Your task to perform on an android device: check google app version Image 0: 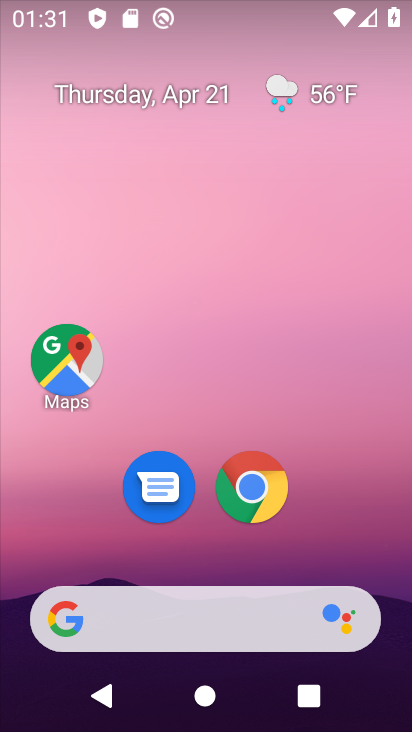
Step 0: click (228, 480)
Your task to perform on an android device: check google app version Image 1: 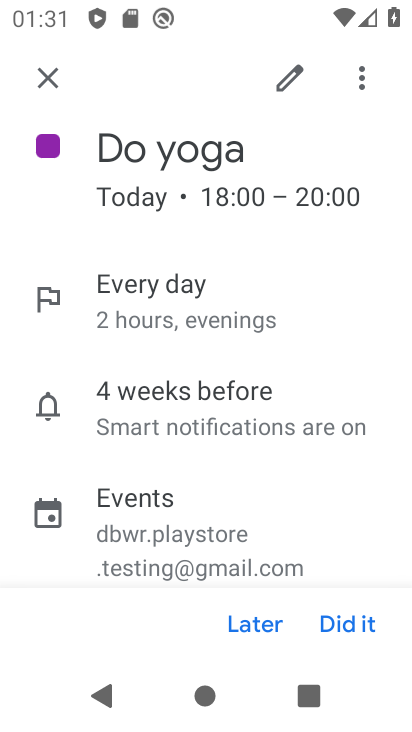
Step 1: press home button
Your task to perform on an android device: check google app version Image 2: 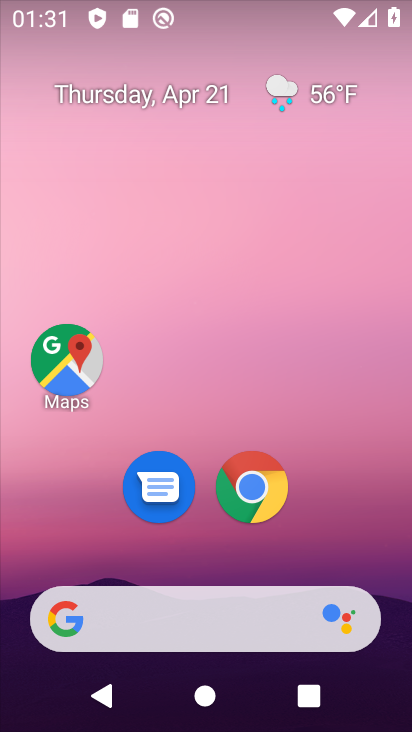
Step 2: drag from (308, 547) to (328, 40)
Your task to perform on an android device: check google app version Image 3: 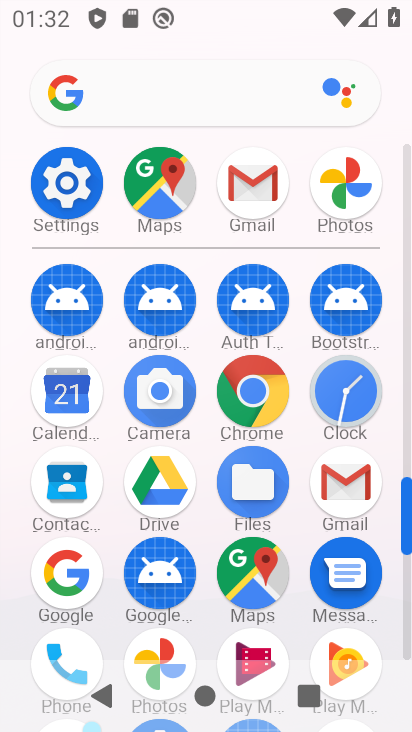
Step 3: click (78, 569)
Your task to perform on an android device: check google app version Image 4: 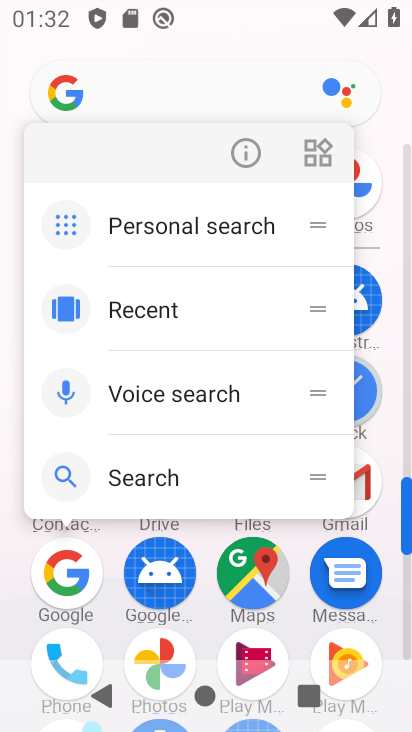
Step 4: click (78, 569)
Your task to perform on an android device: check google app version Image 5: 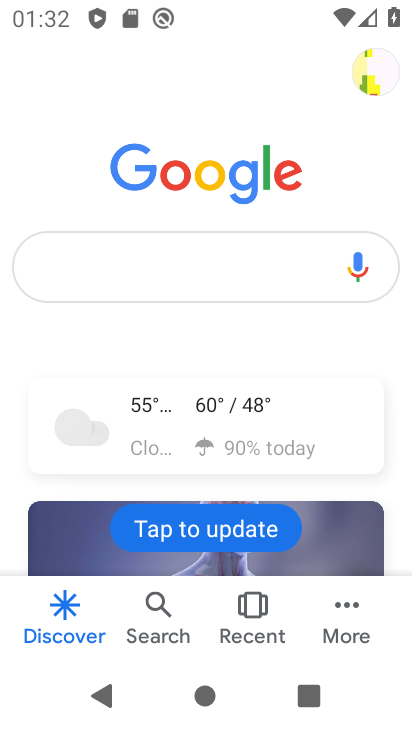
Step 5: click (344, 618)
Your task to perform on an android device: check google app version Image 6: 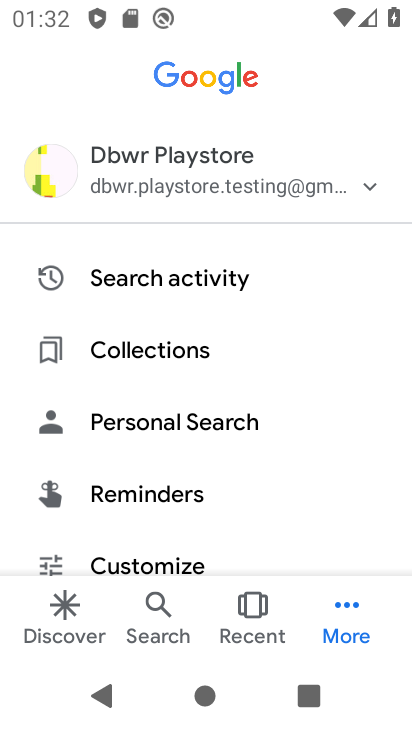
Step 6: drag from (211, 540) to (241, 390)
Your task to perform on an android device: check google app version Image 7: 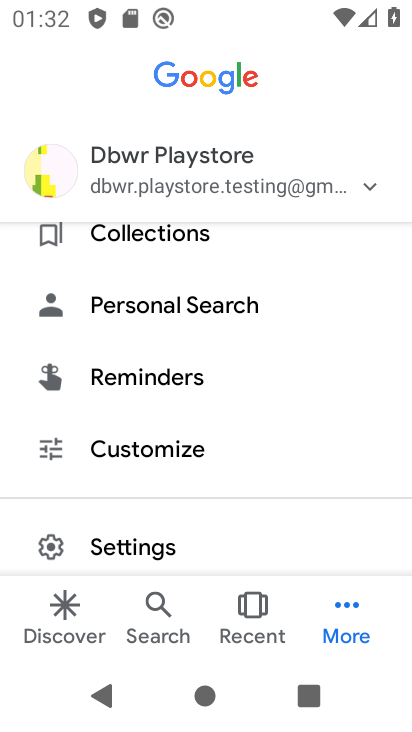
Step 7: click (184, 527)
Your task to perform on an android device: check google app version Image 8: 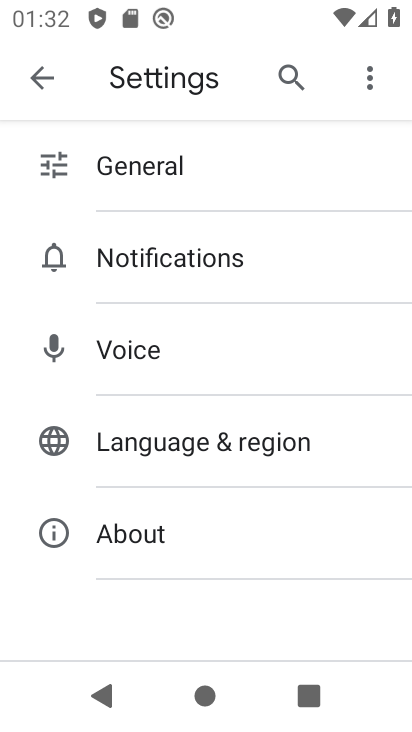
Step 8: click (163, 544)
Your task to perform on an android device: check google app version Image 9: 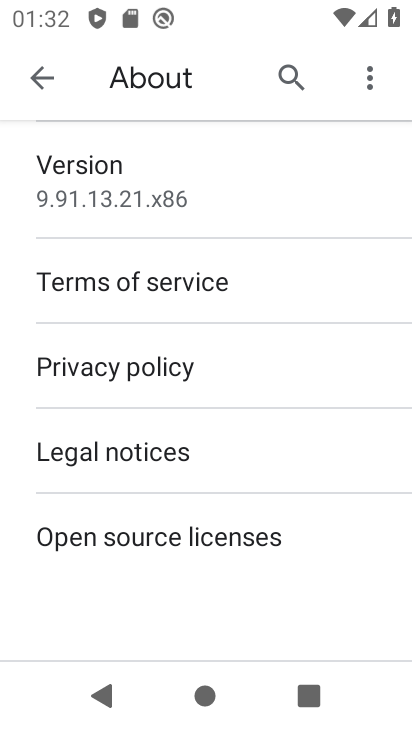
Step 9: click (183, 199)
Your task to perform on an android device: check google app version Image 10: 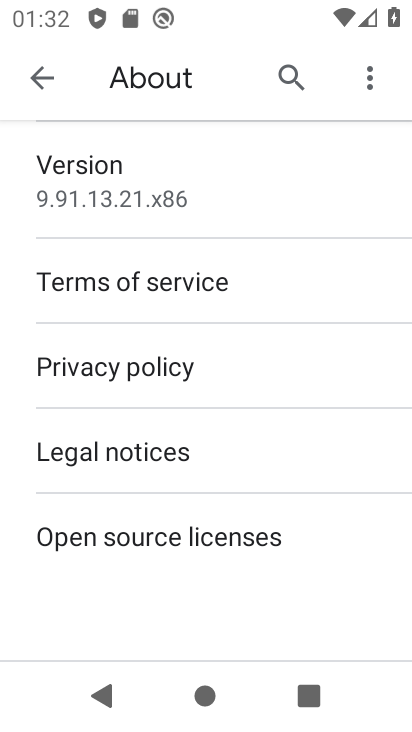
Step 10: task complete